Your task to perform on an android device: allow cookies in the chrome app Image 0: 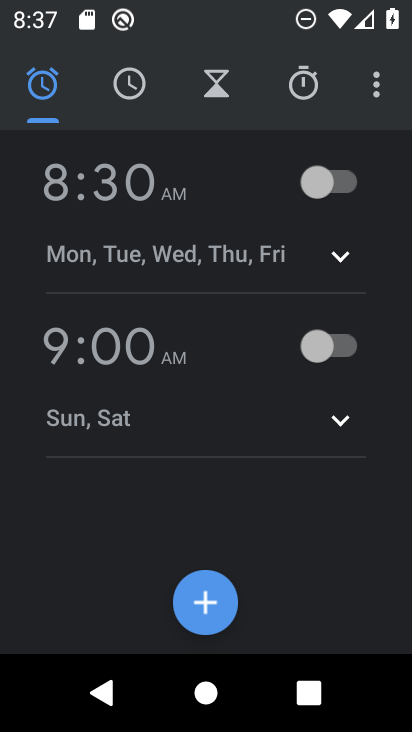
Step 0: press home button
Your task to perform on an android device: allow cookies in the chrome app Image 1: 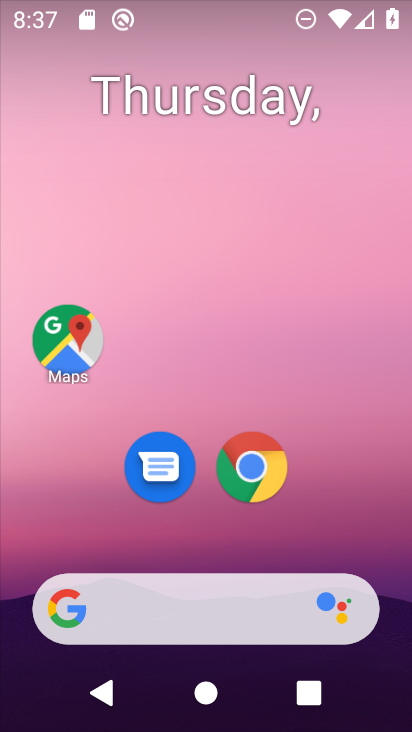
Step 1: click (256, 464)
Your task to perform on an android device: allow cookies in the chrome app Image 2: 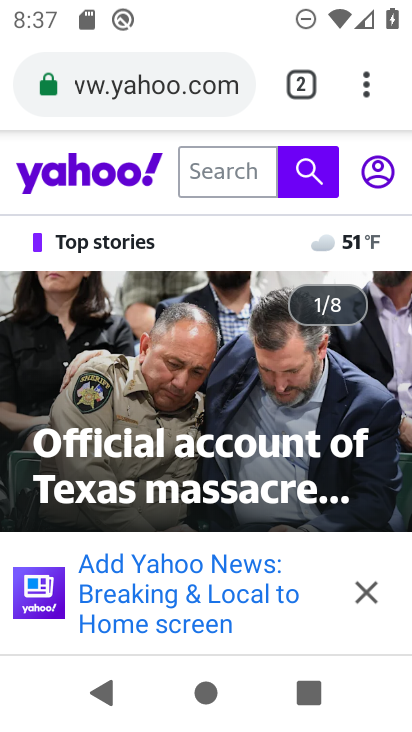
Step 2: click (358, 143)
Your task to perform on an android device: allow cookies in the chrome app Image 3: 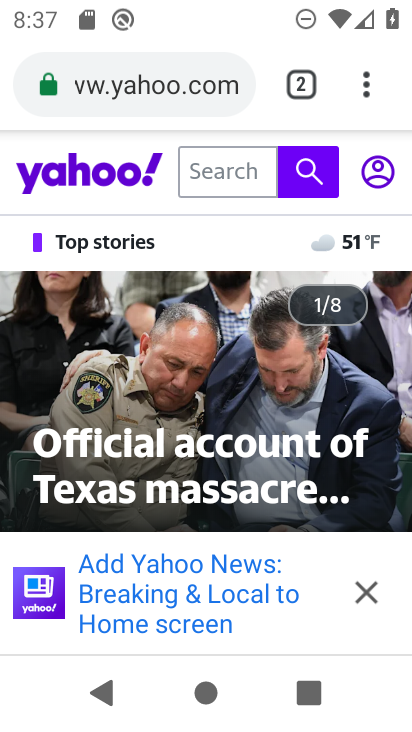
Step 3: click (364, 73)
Your task to perform on an android device: allow cookies in the chrome app Image 4: 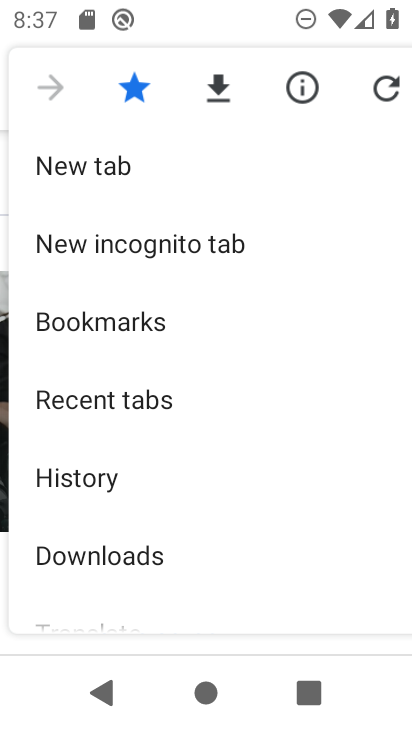
Step 4: drag from (209, 528) to (197, 276)
Your task to perform on an android device: allow cookies in the chrome app Image 5: 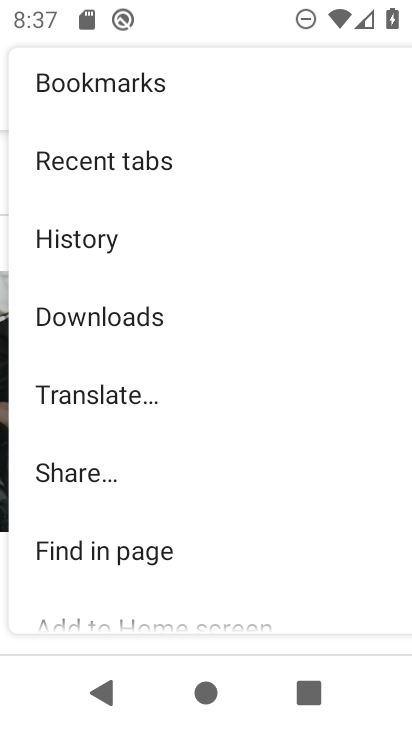
Step 5: drag from (276, 457) to (251, 106)
Your task to perform on an android device: allow cookies in the chrome app Image 6: 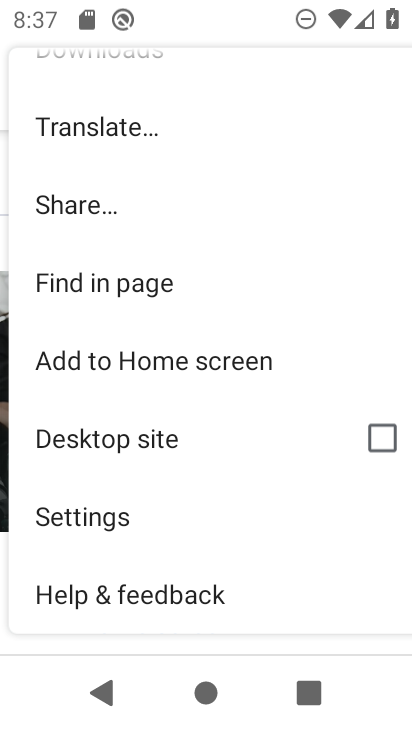
Step 6: click (88, 524)
Your task to perform on an android device: allow cookies in the chrome app Image 7: 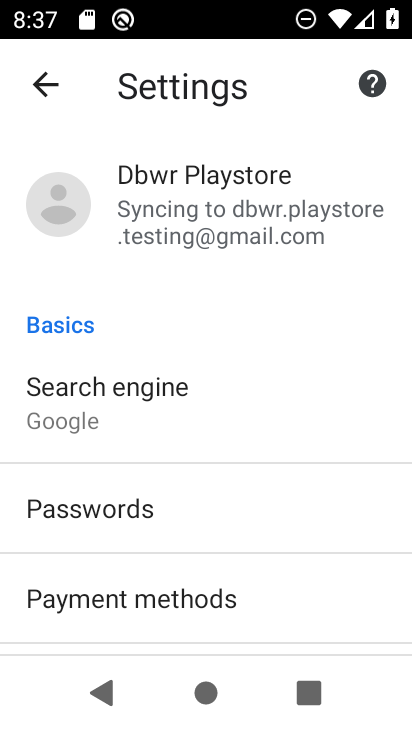
Step 7: drag from (271, 509) to (251, 92)
Your task to perform on an android device: allow cookies in the chrome app Image 8: 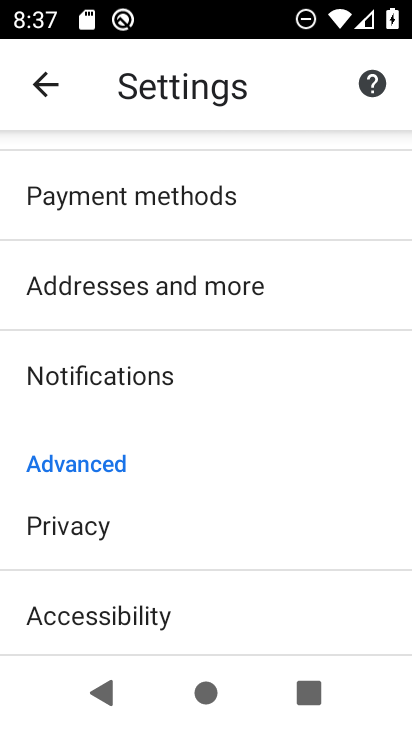
Step 8: drag from (264, 563) to (244, 209)
Your task to perform on an android device: allow cookies in the chrome app Image 9: 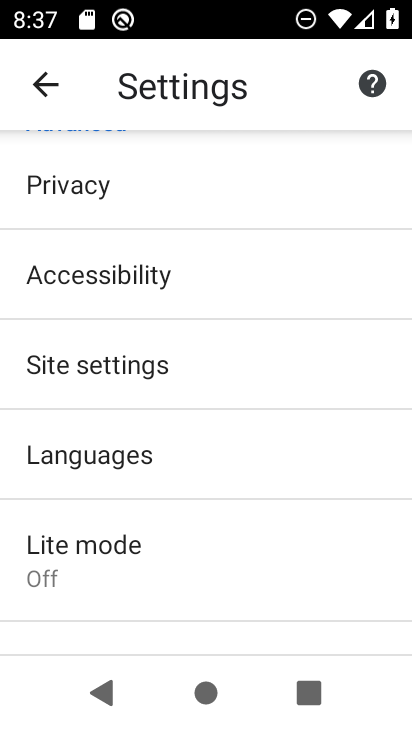
Step 9: click (102, 365)
Your task to perform on an android device: allow cookies in the chrome app Image 10: 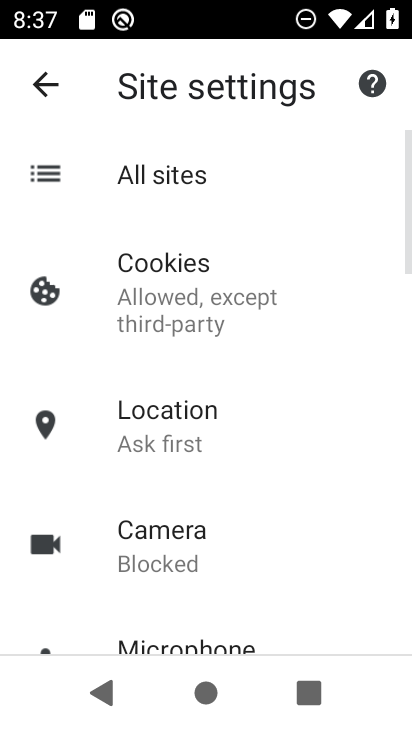
Step 10: click (146, 277)
Your task to perform on an android device: allow cookies in the chrome app Image 11: 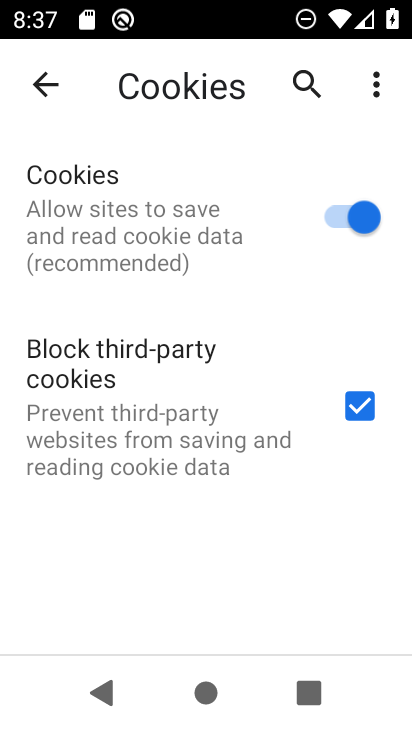
Step 11: task complete